Your task to perform on an android device: change the upload size in google photos Image 0: 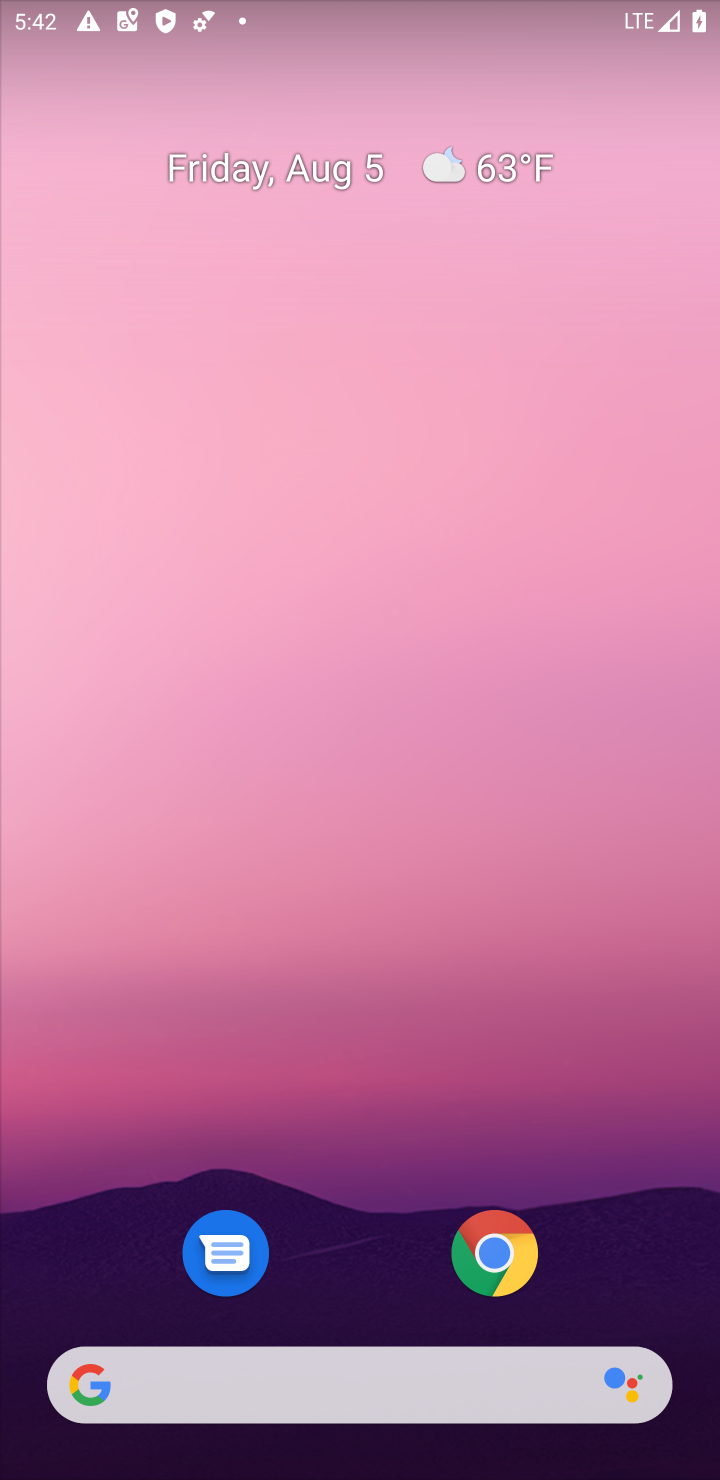
Step 0: press home button
Your task to perform on an android device: change the upload size in google photos Image 1: 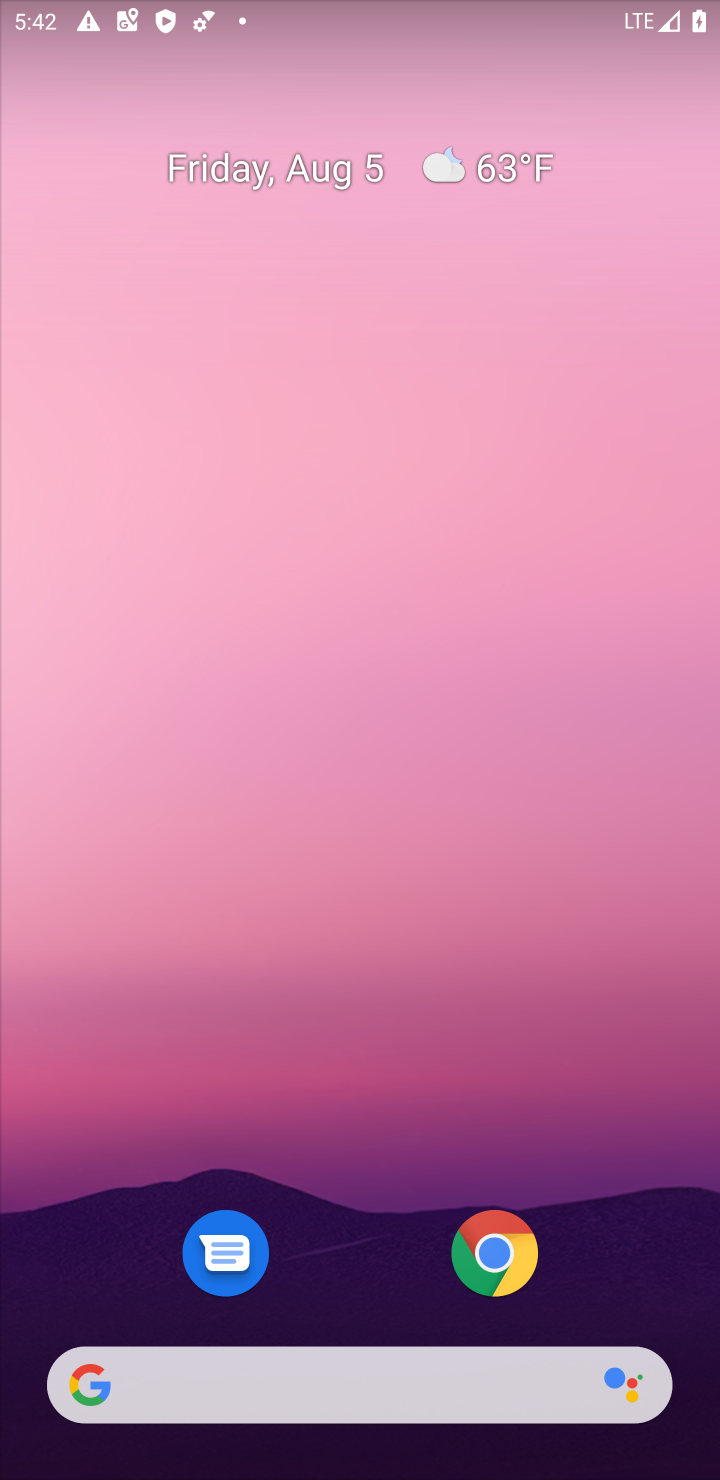
Step 1: drag from (382, 1243) to (382, 340)
Your task to perform on an android device: change the upload size in google photos Image 2: 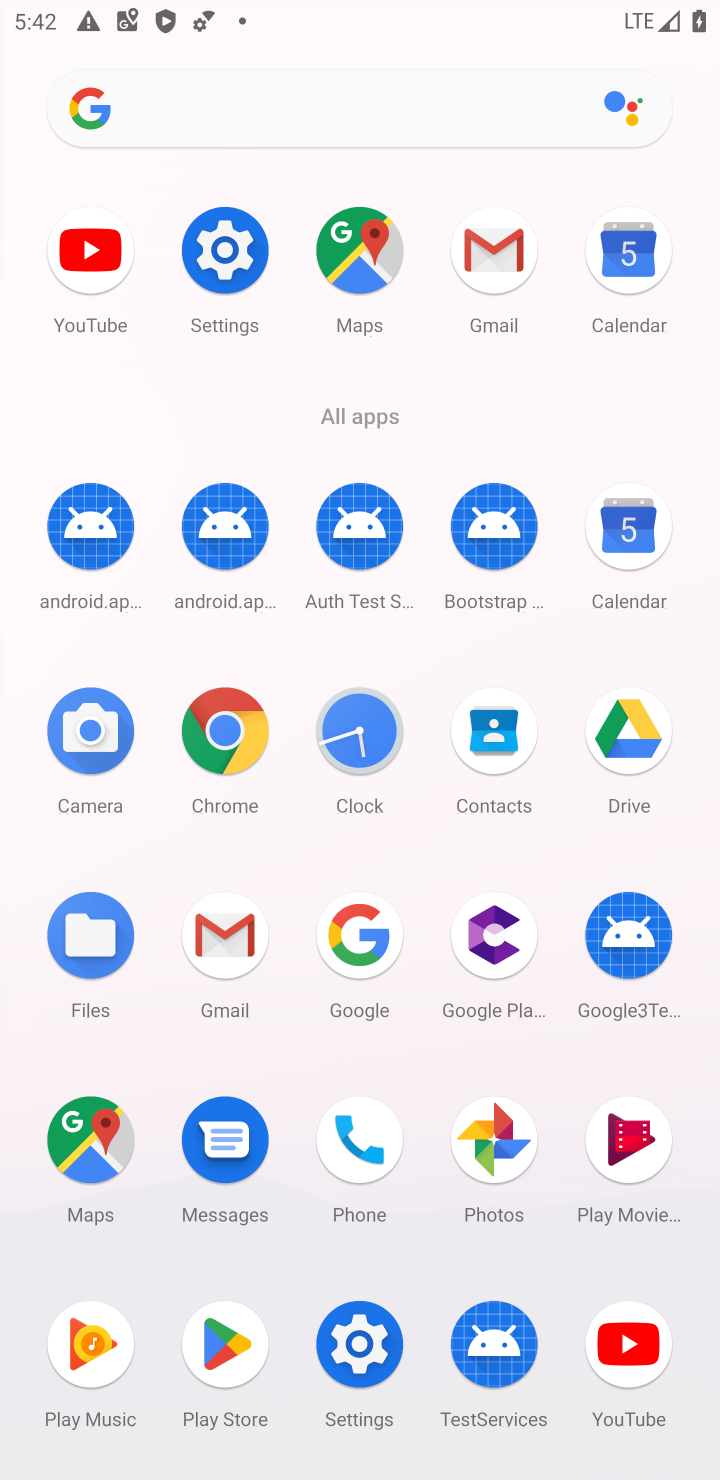
Step 2: click (509, 1141)
Your task to perform on an android device: change the upload size in google photos Image 3: 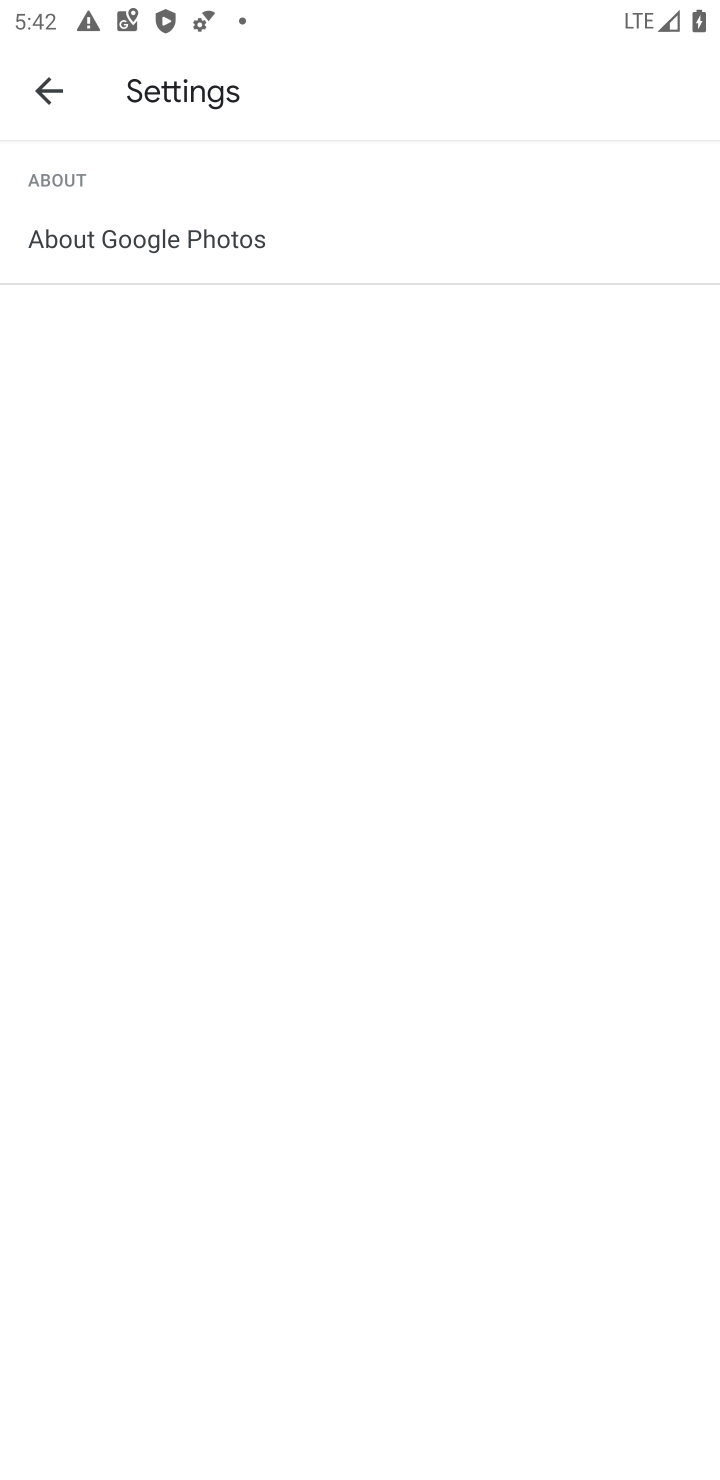
Step 3: click (43, 100)
Your task to perform on an android device: change the upload size in google photos Image 4: 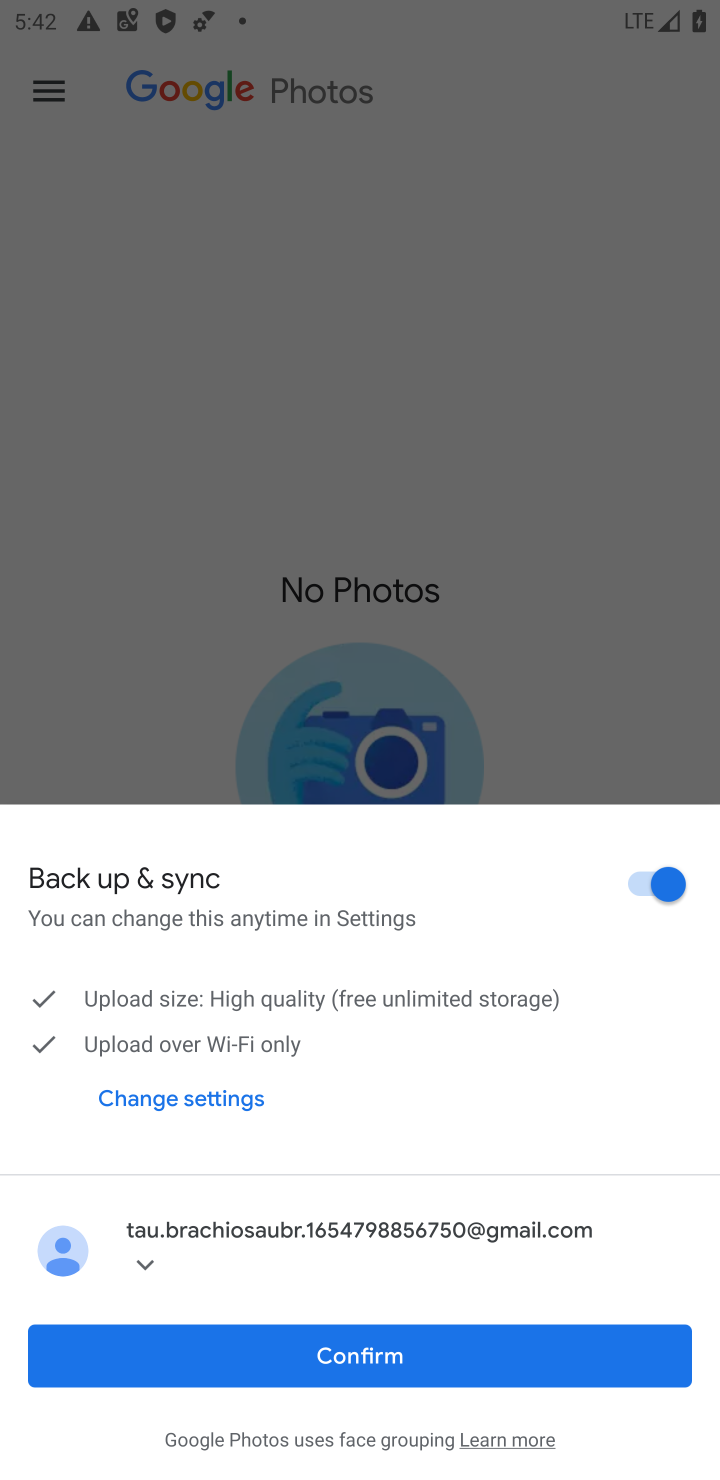
Step 4: click (379, 1345)
Your task to perform on an android device: change the upload size in google photos Image 5: 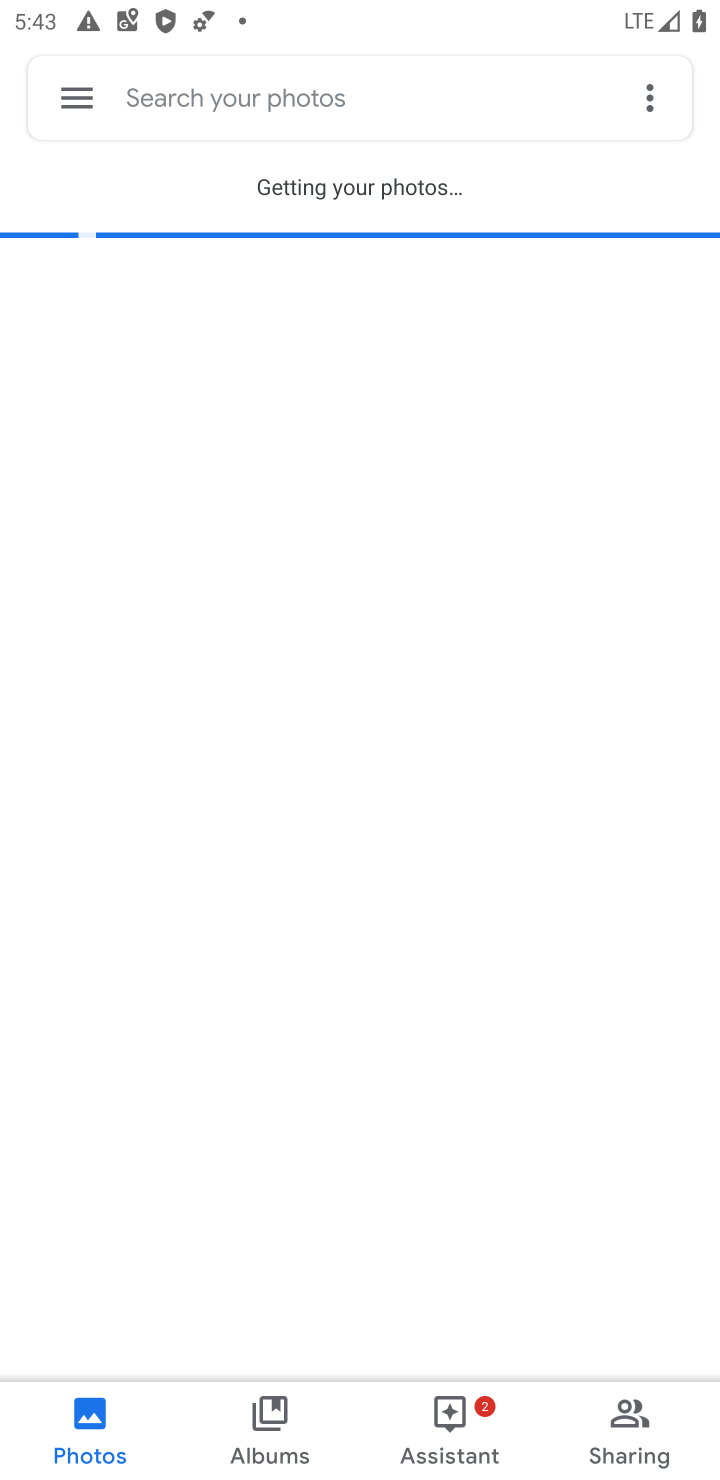
Step 5: click (74, 98)
Your task to perform on an android device: change the upload size in google photos Image 6: 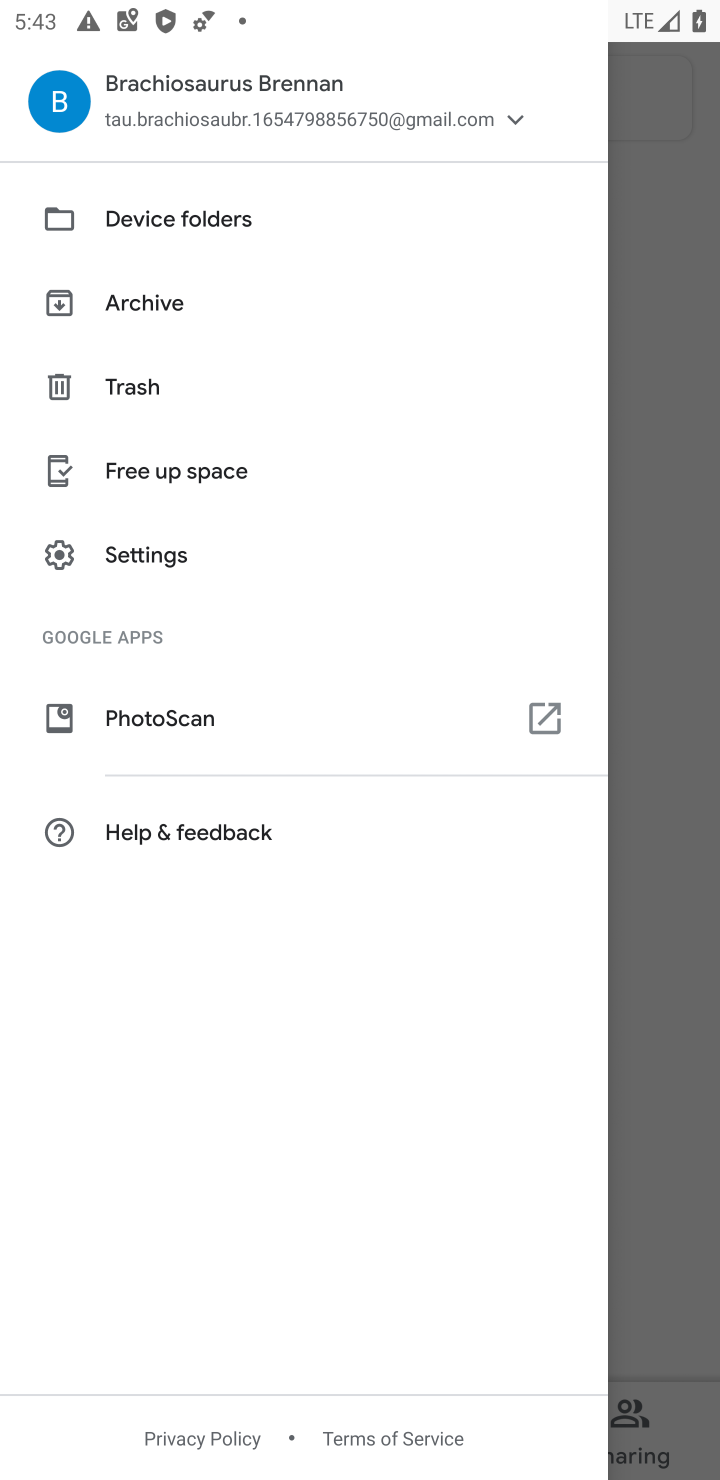
Step 6: click (224, 564)
Your task to perform on an android device: change the upload size in google photos Image 7: 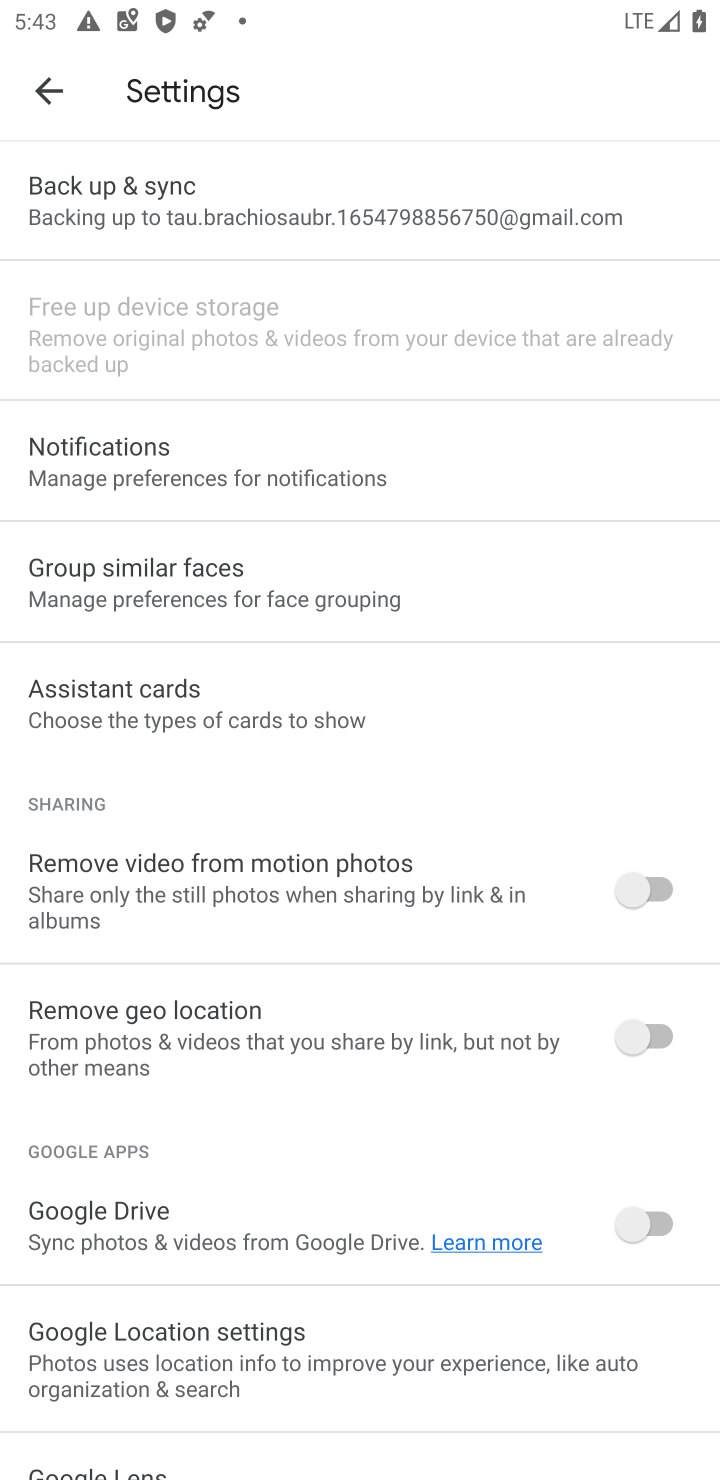
Step 7: click (200, 206)
Your task to perform on an android device: change the upload size in google photos Image 8: 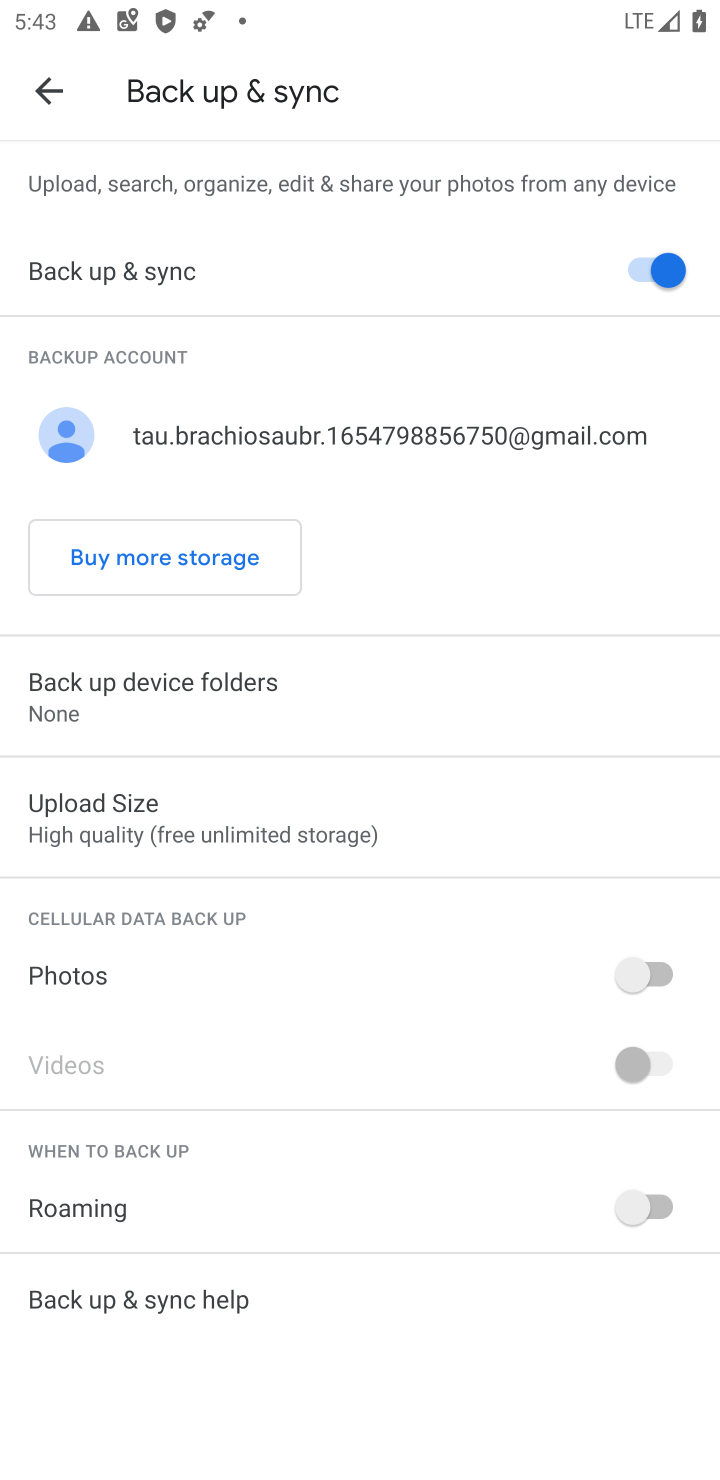
Step 8: click (219, 804)
Your task to perform on an android device: change the upload size in google photos Image 9: 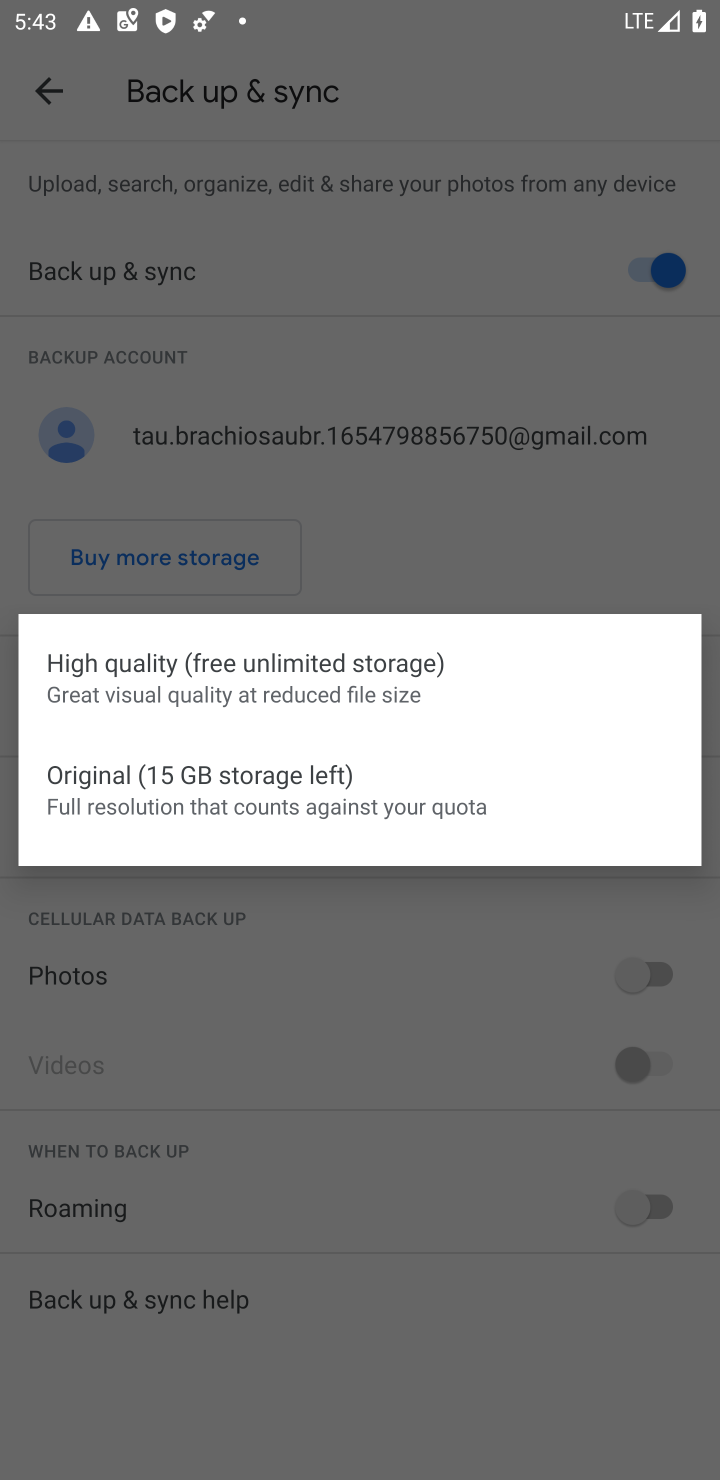
Step 9: click (215, 757)
Your task to perform on an android device: change the upload size in google photos Image 10: 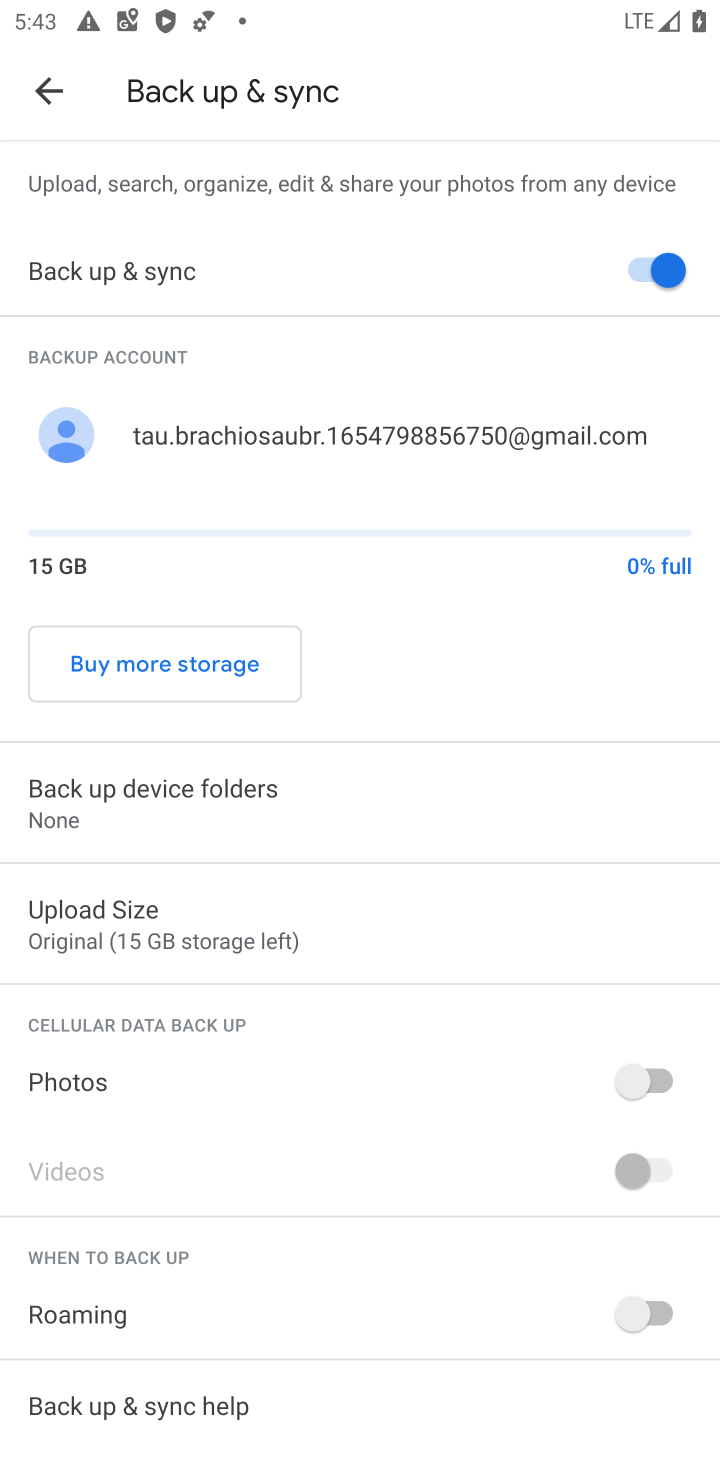
Step 10: task complete